Your task to perform on an android device: move an email to a new category in the gmail app Image 0: 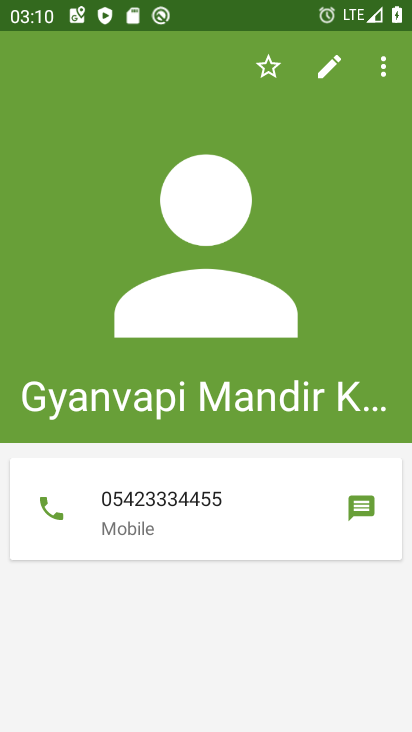
Step 0: press home button
Your task to perform on an android device: move an email to a new category in the gmail app Image 1: 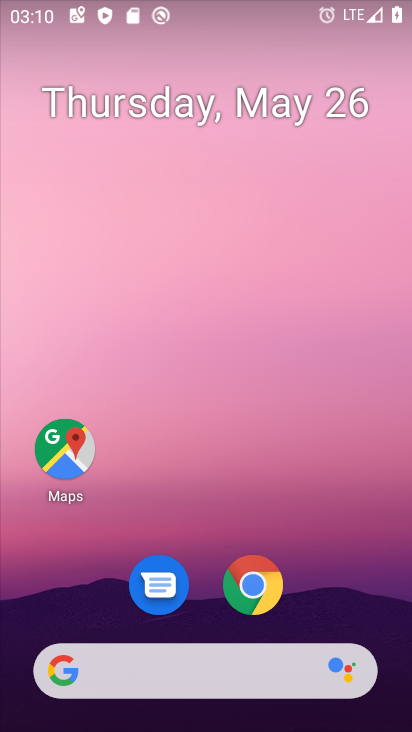
Step 1: drag from (213, 513) to (271, 55)
Your task to perform on an android device: move an email to a new category in the gmail app Image 2: 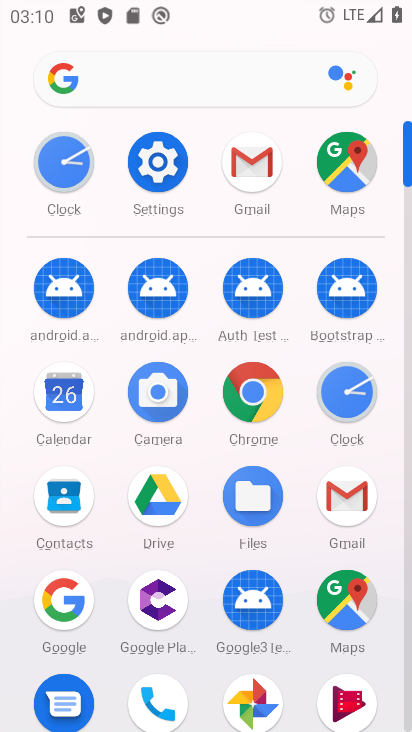
Step 2: click (244, 164)
Your task to perform on an android device: move an email to a new category in the gmail app Image 3: 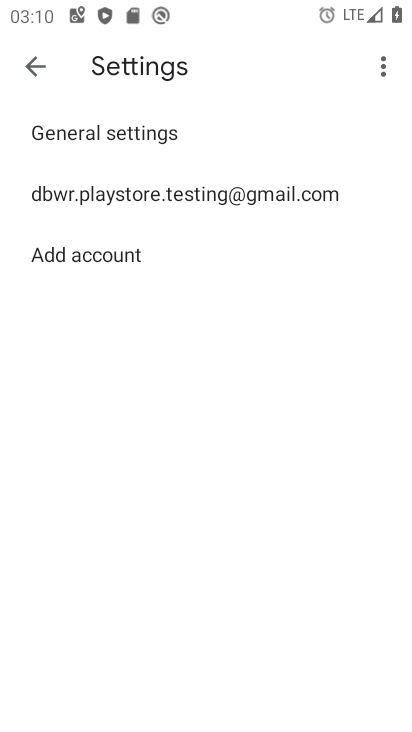
Step 3: click (34, 62)
Your task to perform on an android device: move an email to a new category in the gmail app Image 4: 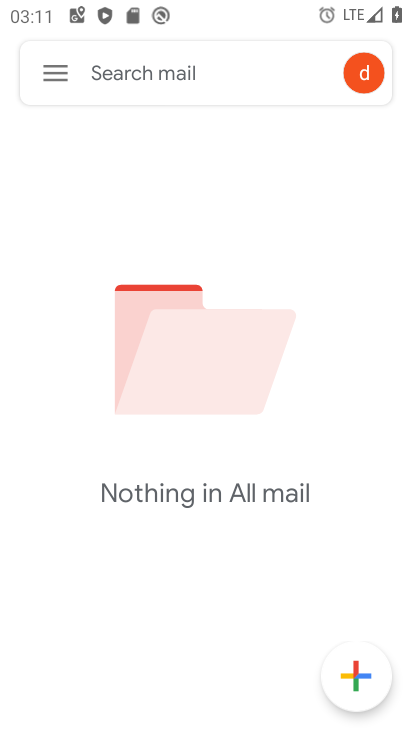
Step 4: task complete